Your task to perform on an android device: Go to calendar. Show me events next week Image 0: 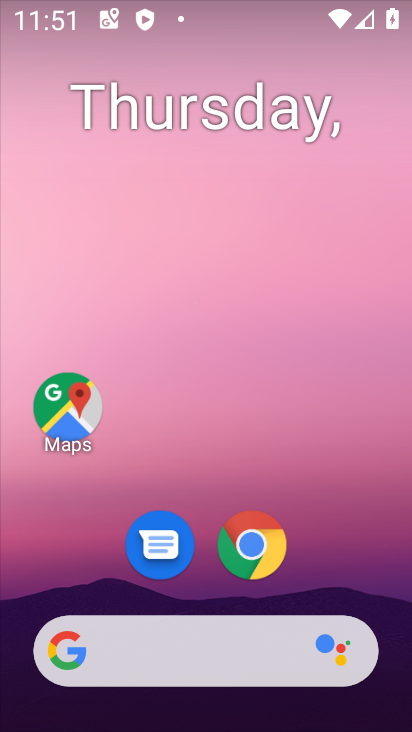
Step 0: drag from (336, 568) to (361, 126)
Your task to perform on an android device: Go to calendar. Show me events next week Image 1: 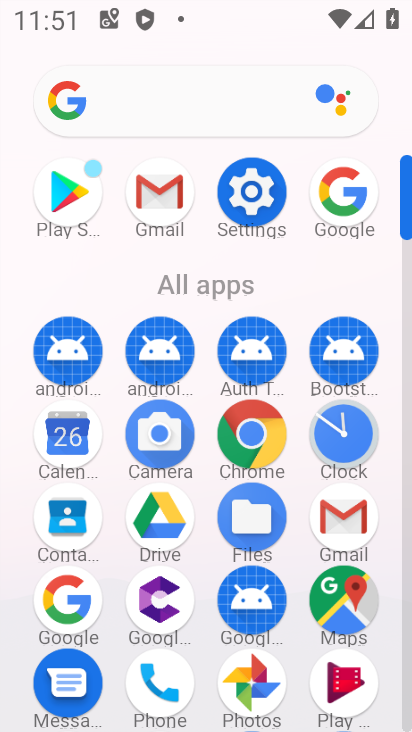
Step 1: click (87, 418)
Your task to perform on an android device: Go to calendar. Show me events next week Image 2: 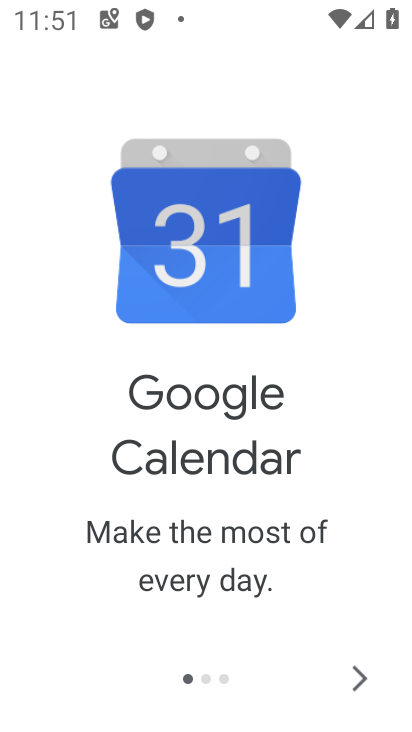
Step 2: click (344, 674)
Your task to perform on an android device: Go to calendar. Show me events next week Image 3: 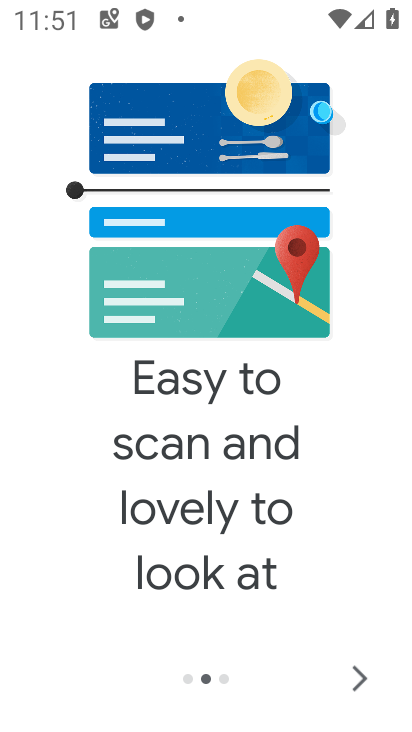
Step 3: click (365, 681)
Your task to perform on an android device: Go to calendar. Show me events next week Image 4: 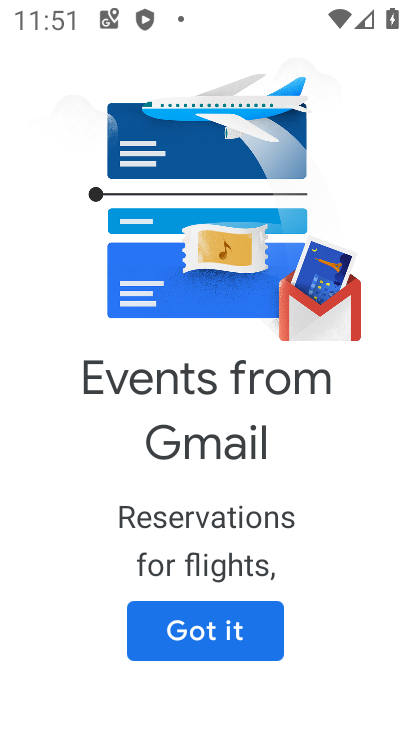
Step 4: click (365, 681)
Your task to perform on an android device: Go to calendar. Show me events next week Image 5: 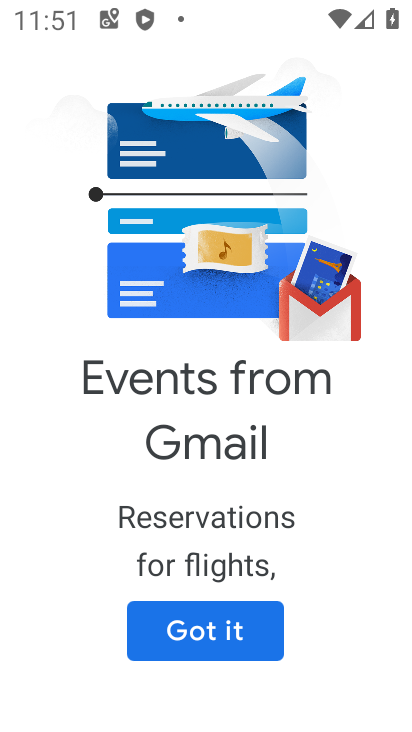
Step 5: click (218, 624)
Your task to perform on an android device: Go to calendar. Show me events next week Image 6: 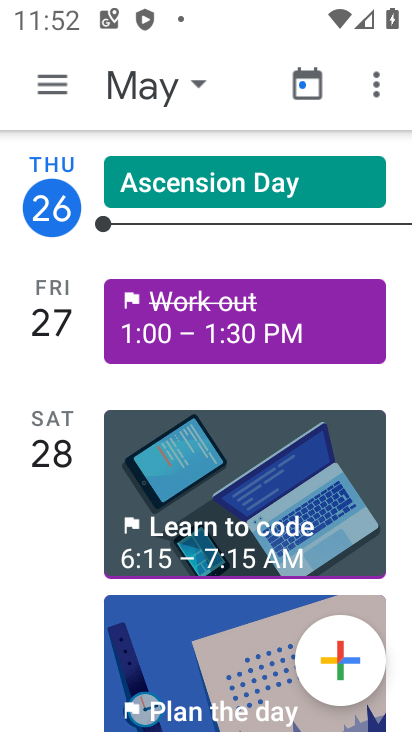
Step 6: click (60, 88)
Your task to perform on an android device: Go to calendar. Show me events next week Image 7: 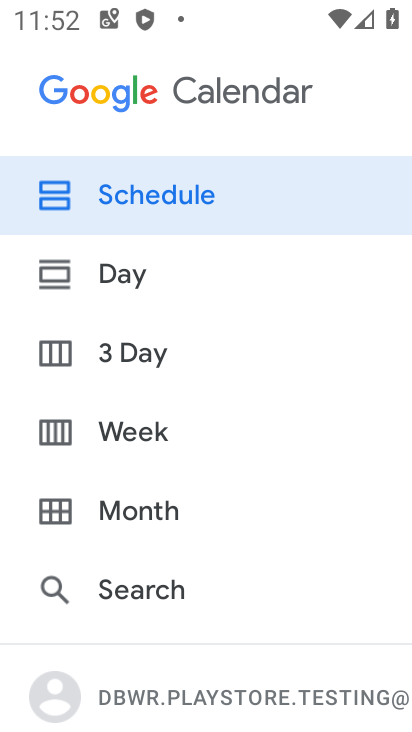
Step 7: click (138, 424)
Your task to perform on an android device: Go to calendar. Show me events next week Image 8: 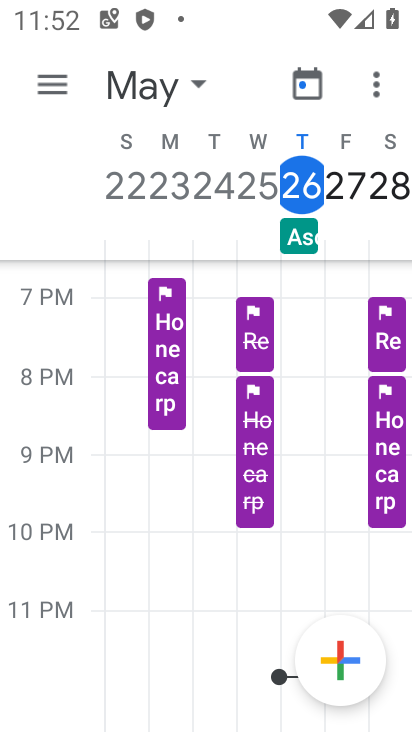
Step 8: task complete